Your task to perform on an android device: Go to Yahoo.com Image 0: 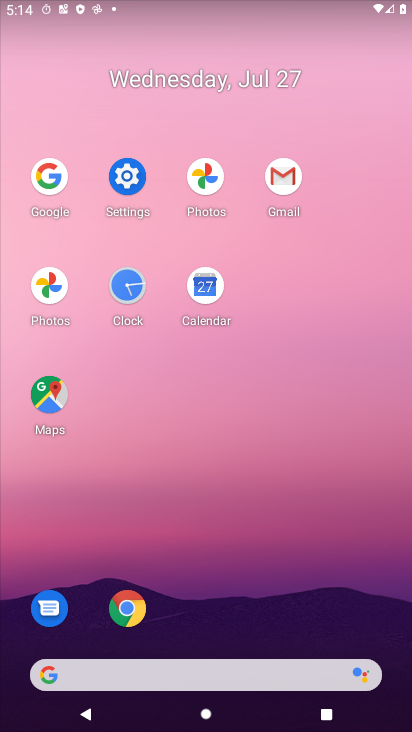
Step 0: click (126, 607)
Your task to perform on an android device: Go to Yahoo.com Image 1: 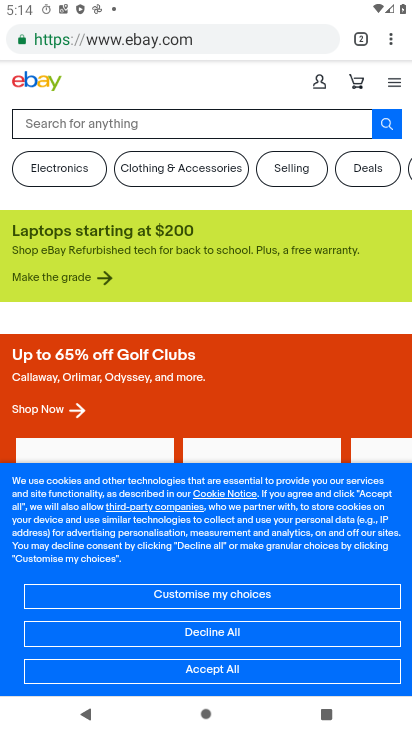
Step 1: click (356, 26)
Your task to perform on an android device: Go to Yahoo.com Image 2: 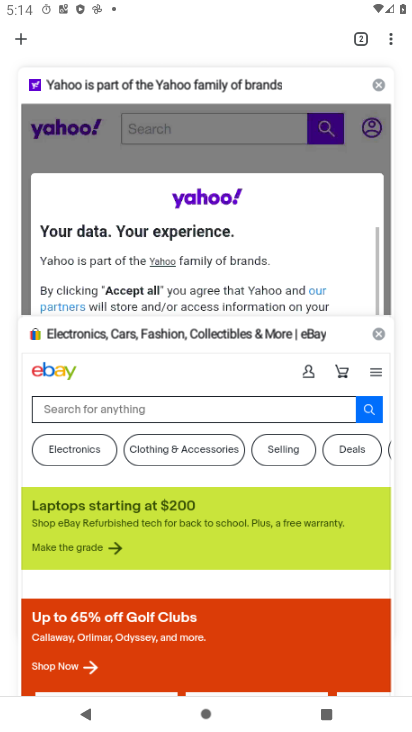
Step 2: click (89, 120)
Your task to perform on an android device: Go to Yahoo.com Image 3: 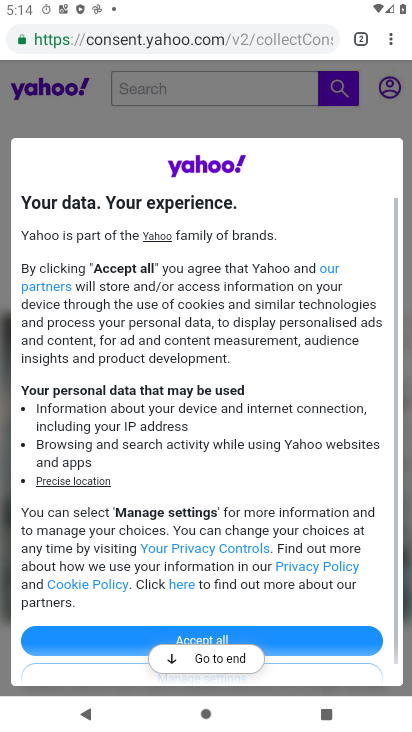
Step 3: task complete